Your task to perform on an android device: move a message to another label in the gmail app Image 0: 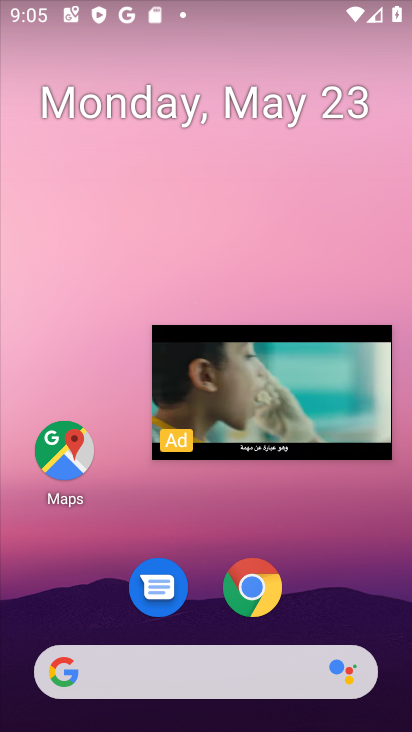
Step 0: click (268, 366)
Your task to perform on an android device: move a message to another label in the gmail app Image 1: 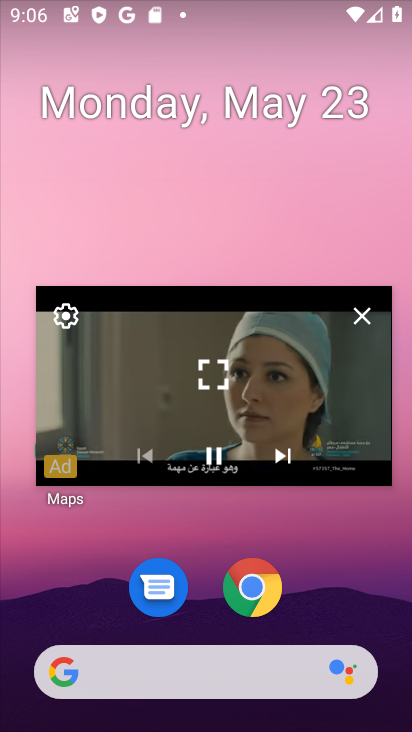
Step 1: click (261, 381)
Your task to perform on an android device: move a message to another label in the gmail app Image 2: 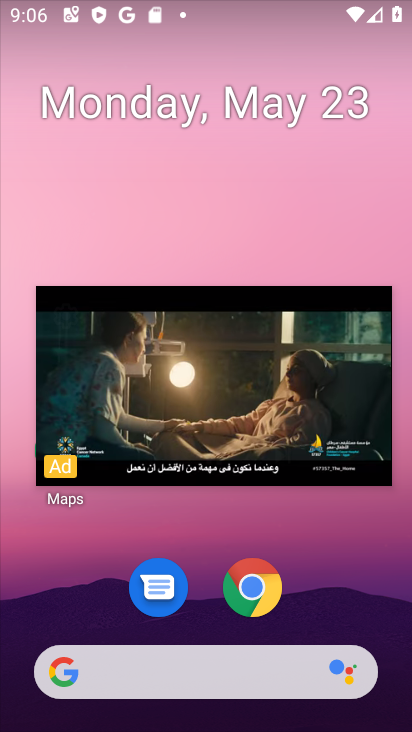
Step 2: click (222, 371)
Your task to perform on an android device: move a message to another label in the gmail app Image 3: 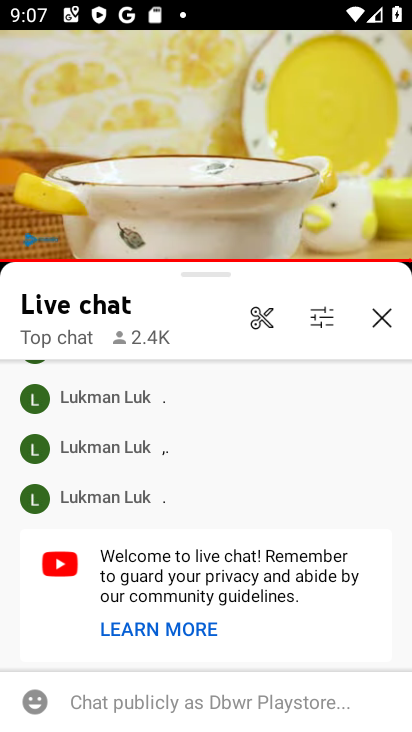
Step 3: press home button
Your task to perform on an android device: move a message to another label in the gmail app Image 4: 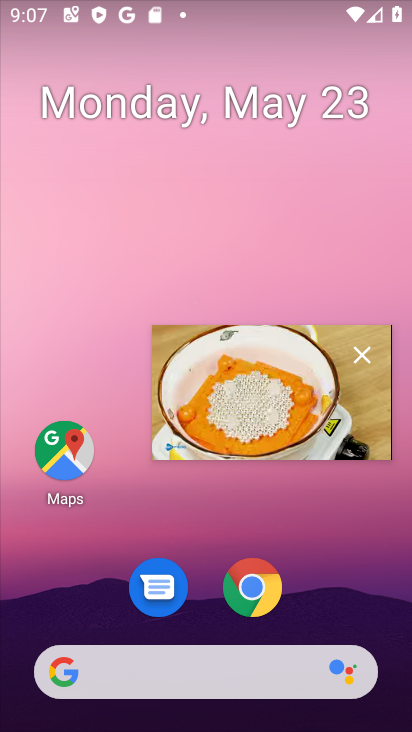
Step 4: click (252, 362)
Your task to perform on an android device: move a message to another label in the gmail app Image 5: 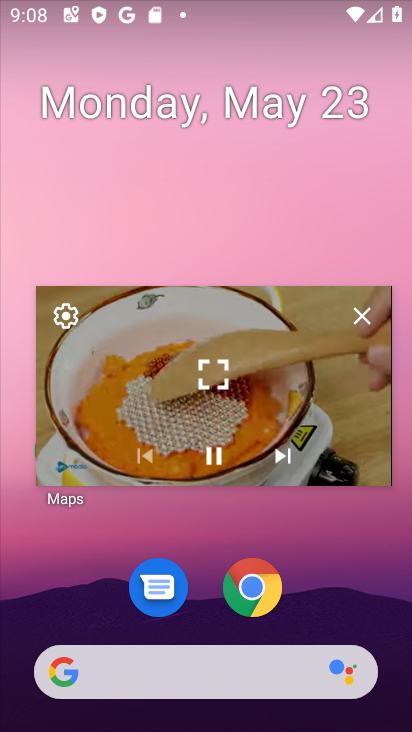
Step 5: click (226, 367)
Your task to perform on an android device: move a message to another label in the gmail app Image 6: 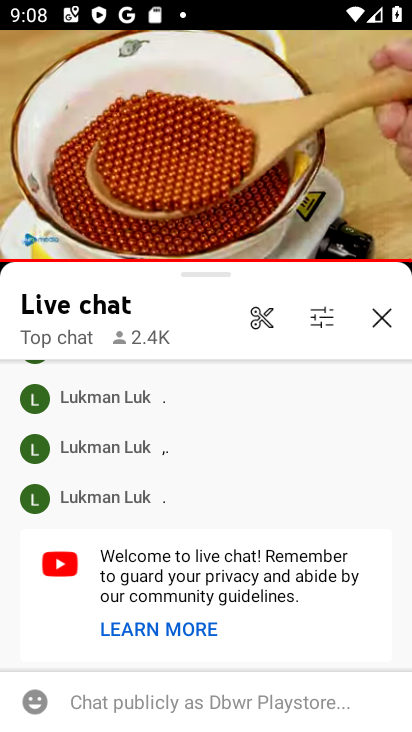
Step 6: click (185, 139)
Your task to perform on an android device: move a message to another label in the gmail app Image 7: 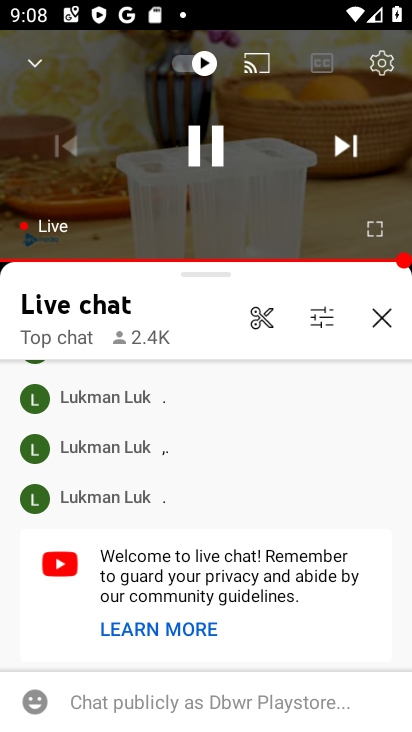
Step 7: click (199, 140)
Your task to perform on an android device: move a message to another label in the gmail app Image 8: 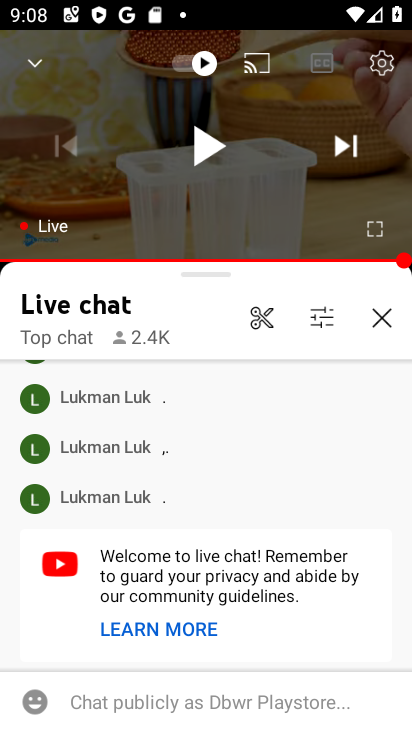
Step 8: press home button
Your task to perform on an android device: move a message to another label in the gmail app Image 9: 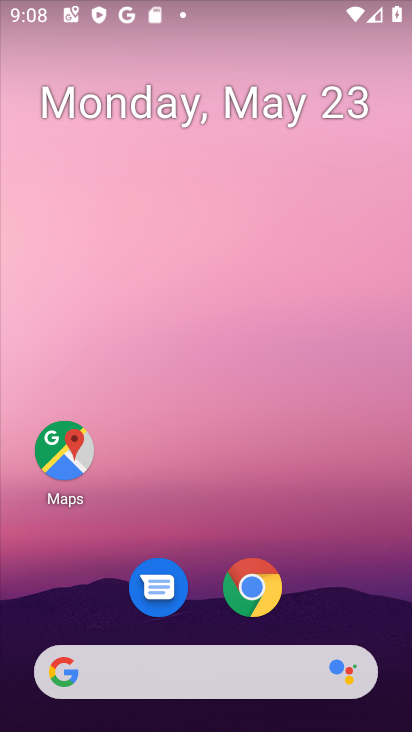
Step 9: drag from (210, 447) to (282, 14)
Your task to perform on an android device: move a message to another label in the gmail app Image 10: 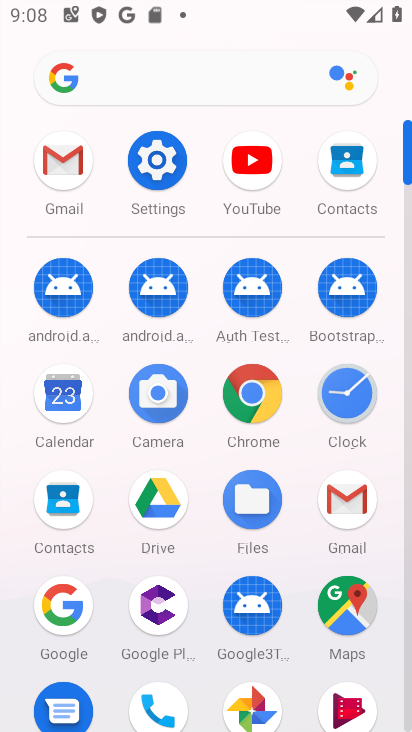
Step 10: click (71, 166)
Your task to perform on an android device: move a message to another label in the gmail app Image 11: 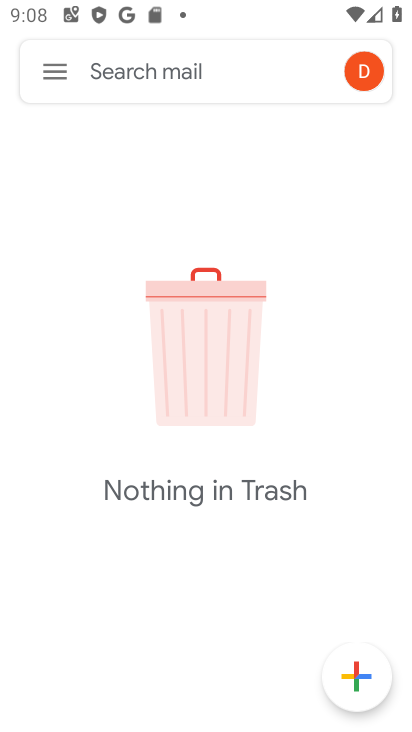
Step 11: click (44, 70)
Your task to perform on an android device: move a message to another label in the gmail app Image 12: 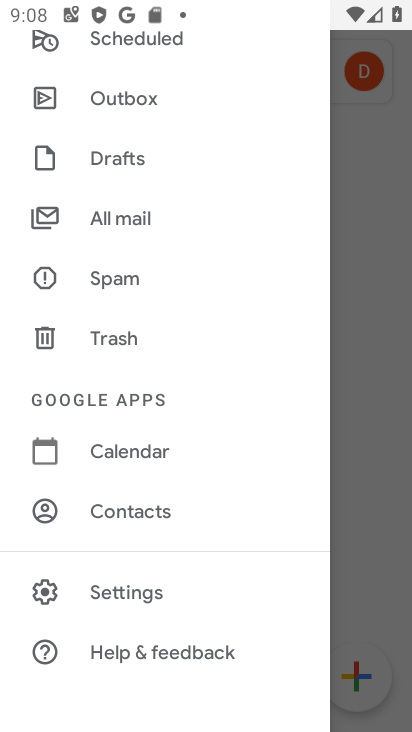
Step 12: click (132, 216)
Your task to perform on an android device: move a message to another label in the gmail app Image 13: 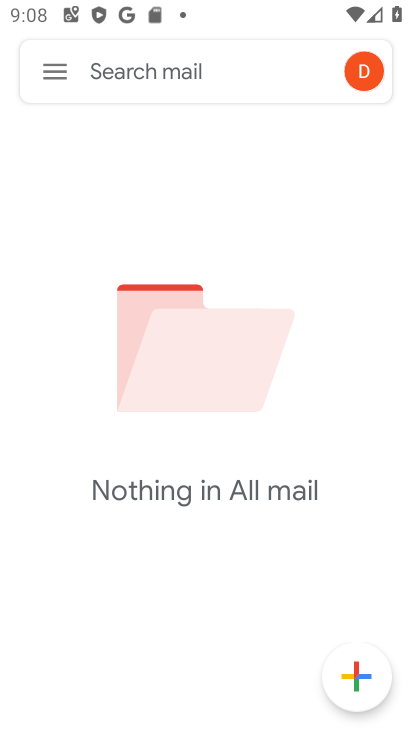
Step 13: task complete